Your task to perform on an android device: What's the weather going to be tomorrow? Image 0: 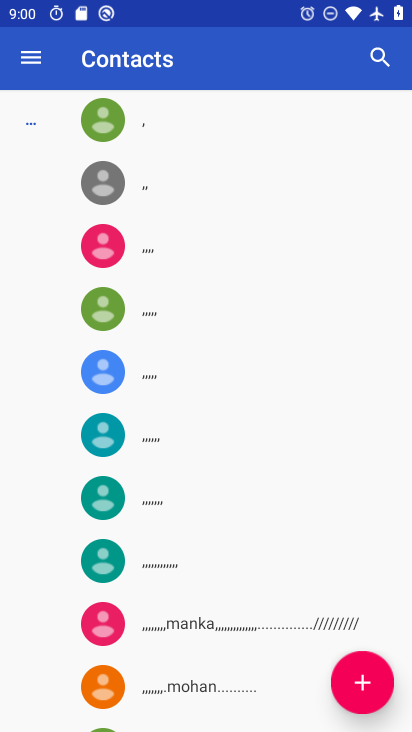
Step 0: press home button
Your task to perform on an android device: What's the weather going to be tomorrow? Image 1: 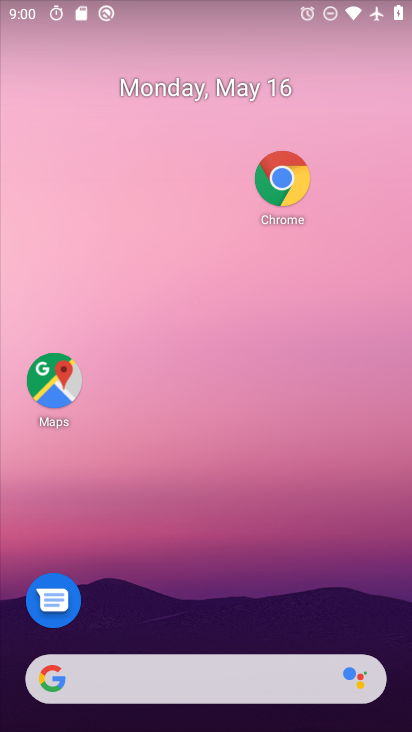
Step 1: click (60, 680)
Your task to perform on an android device: What's the weather going to be tomorrow? Image 2: 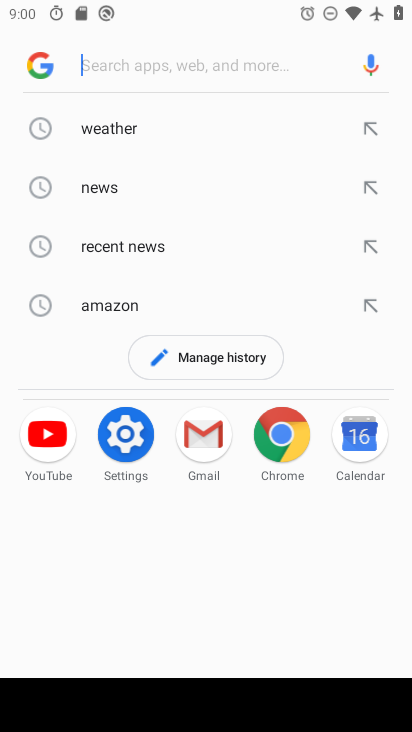
Step 2: click (106, 132)
Your task to perform on an android device: What's the weather going to be tomorrow? Image 3: 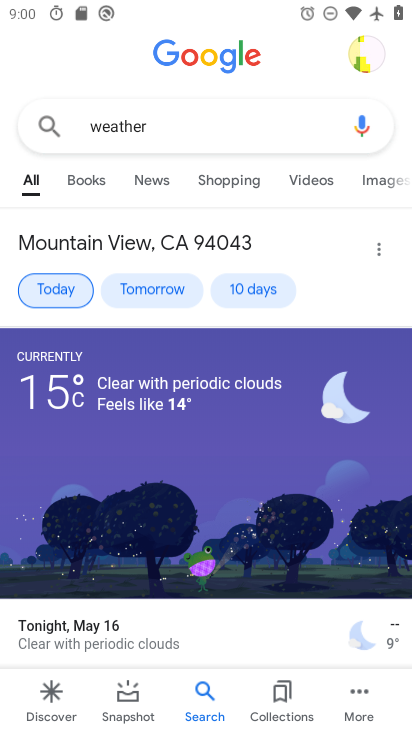
Step 3: click (140, 283)
Your task to perform on an android device: What's the weather going to be tomorrow? Image 4: 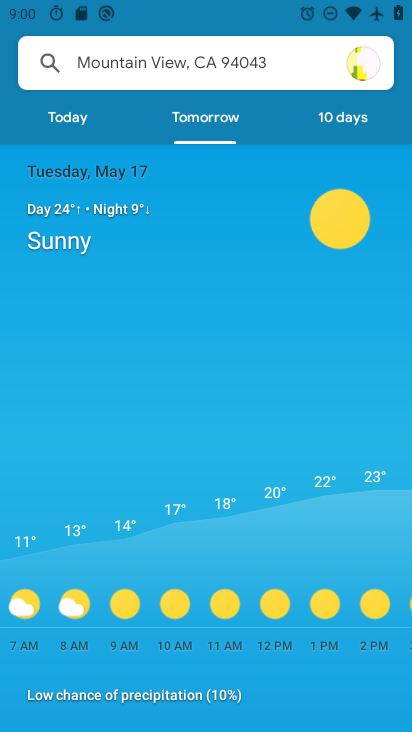
Step 4: task complete